Your task to perform on an android device: Open settings on Google Maps Image 0: 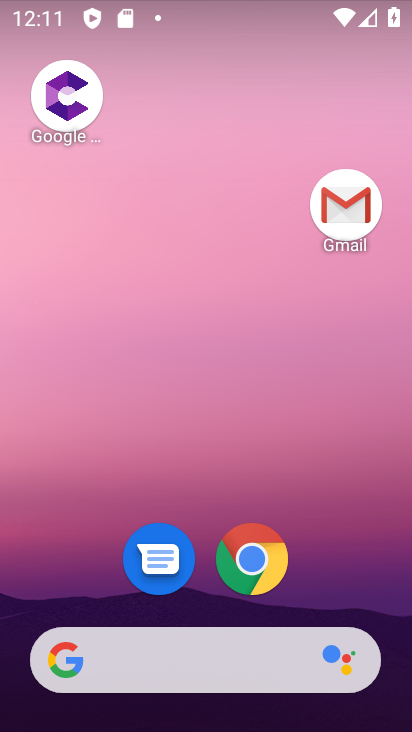
Step 0: drag from (330, 590) to (350, 345)
Your task to perform on an android device: Open settings on Google Maps Image 1: 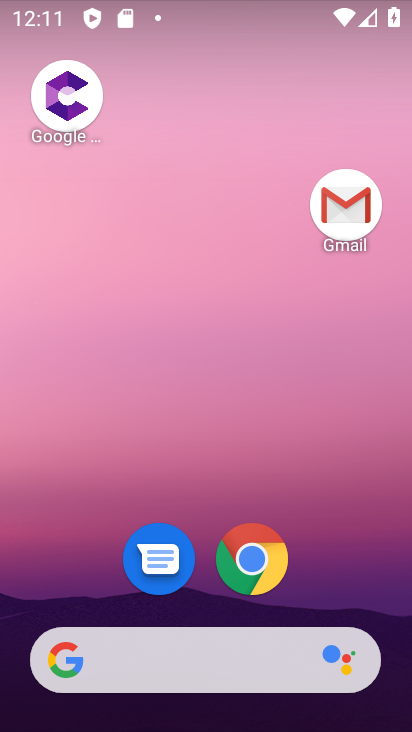
Step 1: drag from (341, 551) to (350, 129)
Your task to perform on an android device: Open settings on Google Maps Image 2: 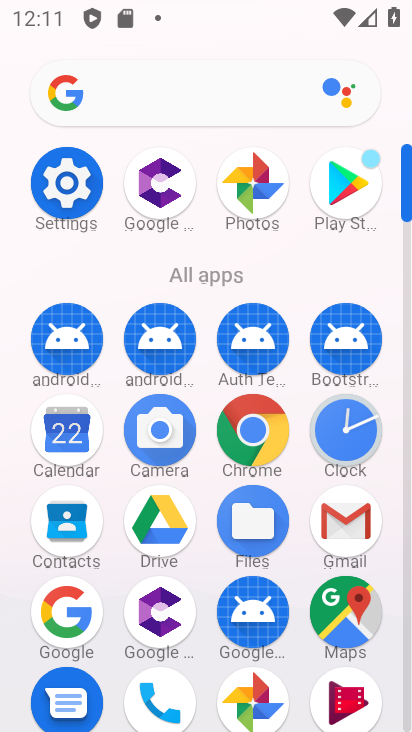
Step 2: click (358, 628)
Your task to perform on an android device: Open settings on Google Maps Image 3: 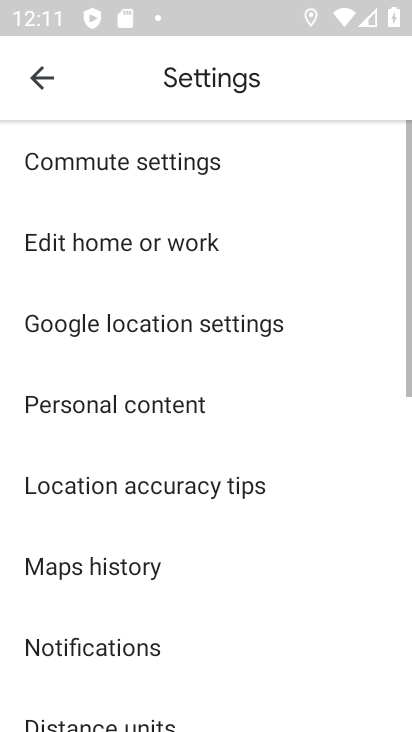
Step 3: click (45, 75)
Your task to perform on an android device: Open settings on Google Maps Image 4: 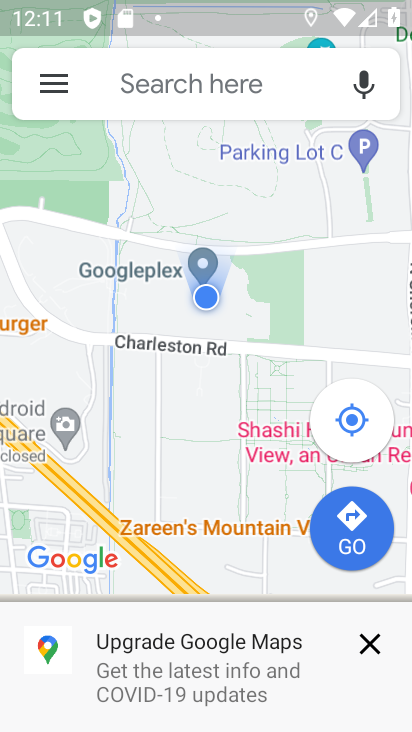
Step 4: click (53, 92)
Your task to perform on an android device: Open settings on Google Maps Image 5: 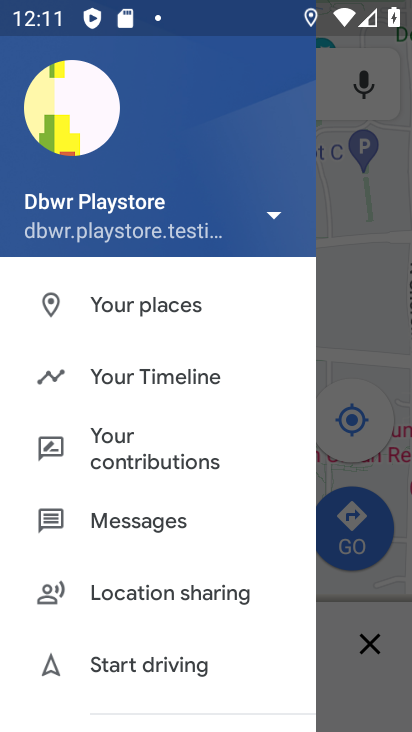
Step 5: drag from (262, 640) to (272, 484)
Your task to perform on an android device: Open settings on Google Maps Image 6: 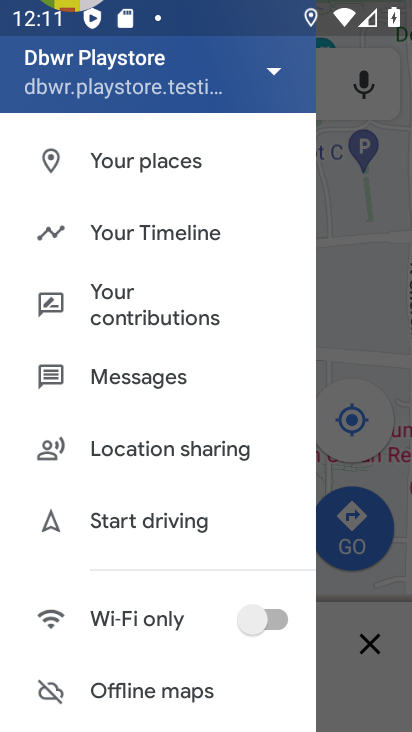
Step 6: drag from (199, 653) to (204, 465)
Your task to perform on an android device: Open settings on Google Maps Image 7: 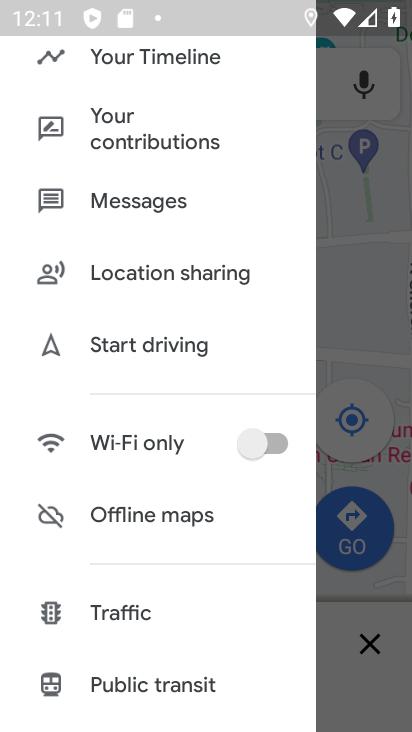
Step 7: drag from (198, 628) to (217, 428)
Your task to perform on an android device: Open settings on Google Maps Image 8: 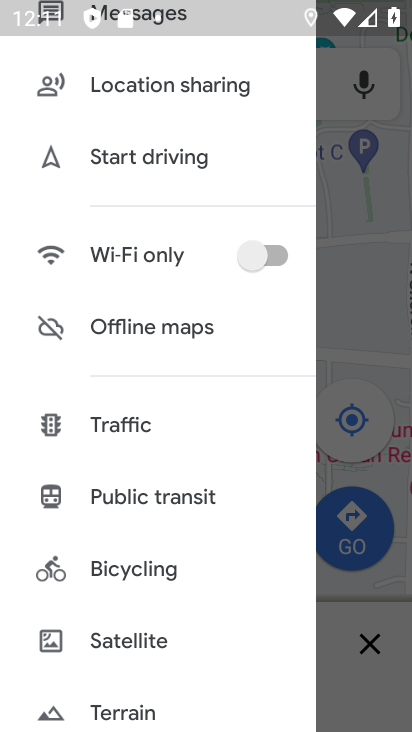
Step 8: drag from (206, 659) to (233, 459)
Your task to perform on an android device: Open settings on Google Maps Image 9: 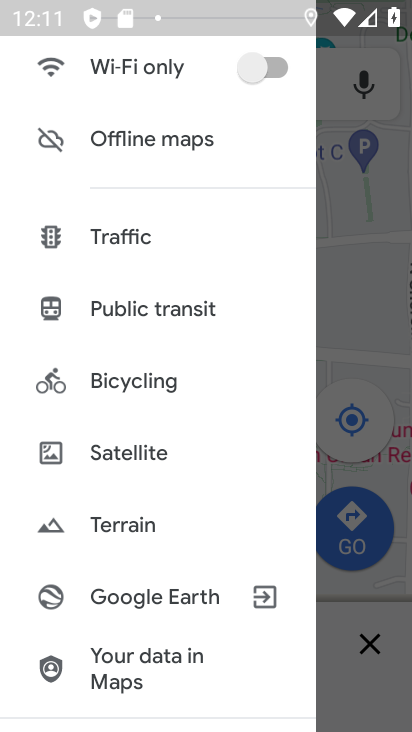
Step 9: drag from (207, 666) to (230, 473)
Your task to perform on an android device: Open settings on Google Maps Image 10: 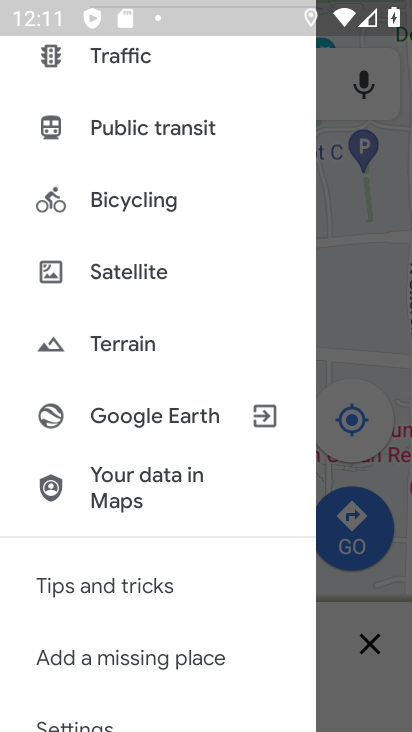
Step 10: drag from (237, 666) to (242, 469)
Your task to perform on an android device: Open settings on Google Maps Image 11: 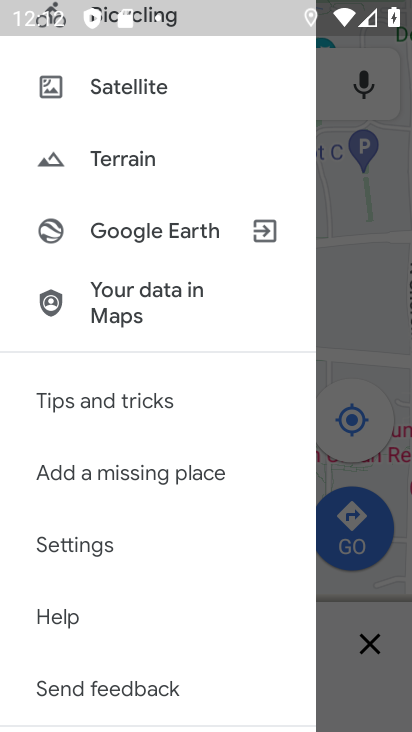
Step 11: click (79, 542)
Your task to perform on an android device: Open settings on Google Maps Image 12: 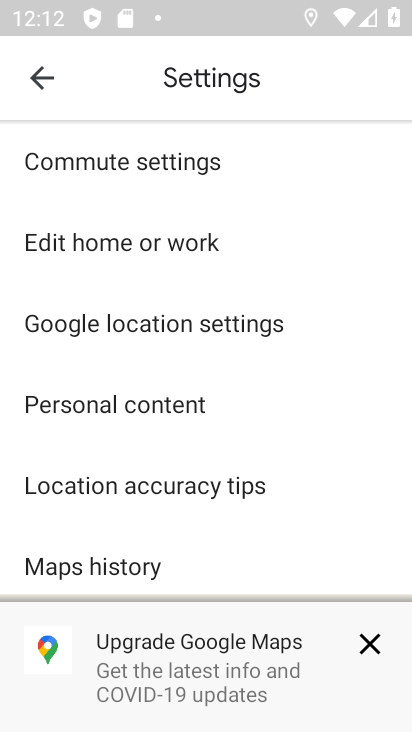
Step 12: task complete